Your task to perform on an android device: visit the assistant section in the google photos Image 0: 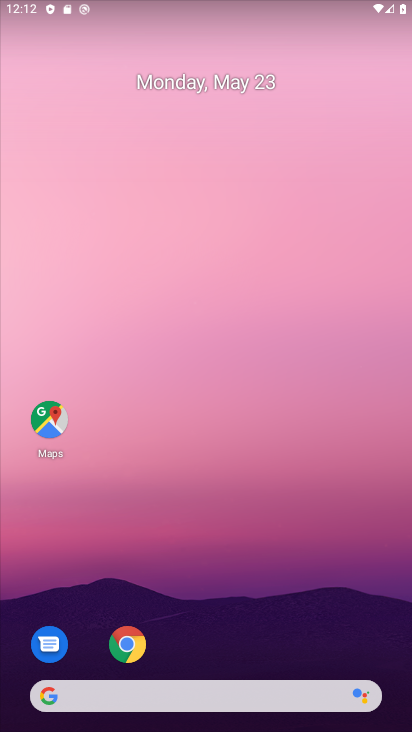
Step 0: drag from (311, 654) to (261, 11)
Your task to perform on an android device: visit the assistant section in the google photos Image 1: 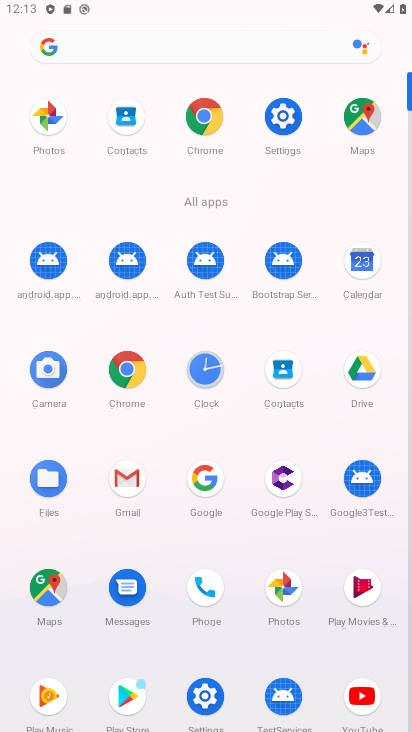
Step 1: click (284, 582)
Your task to perform on an android device: visit the assistant section in the google photos Image 2: 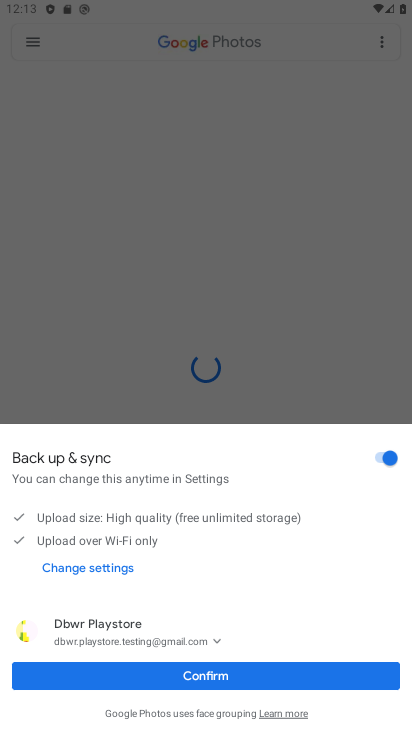
Step 2: click (266, 674)
Your task to perform on an android device: visit the assistant section in the google photos Image 3: 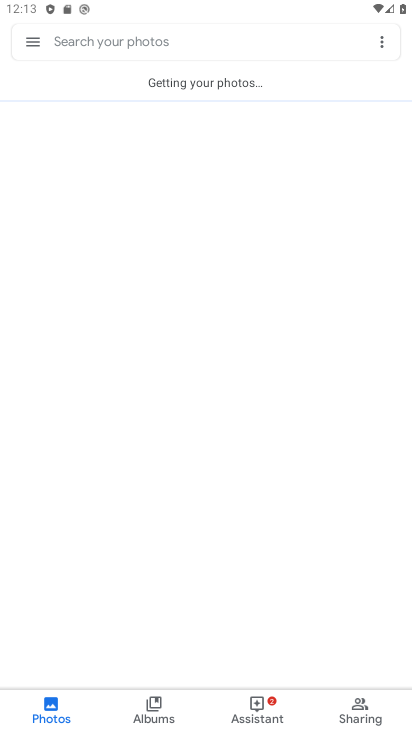
Step 3: click (254, 707)
Your task to perform on an android device: visit the assistant section in the google photos Image 4: 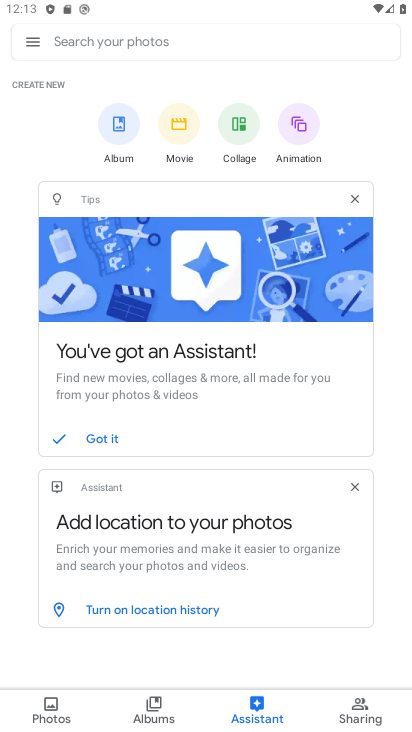
Step 4: task complete